Your task to perform on an android device: Check the settings for the YouTube app Image 0: 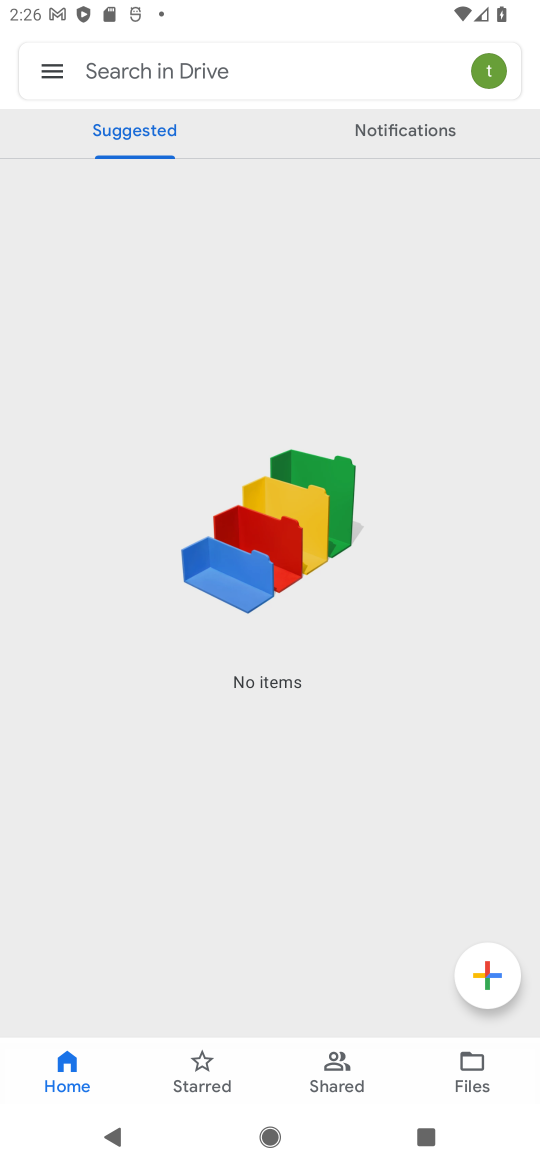
Step 0: press home button
Your task to perform on an android device: Check the settings for the YouTube app Image 1: 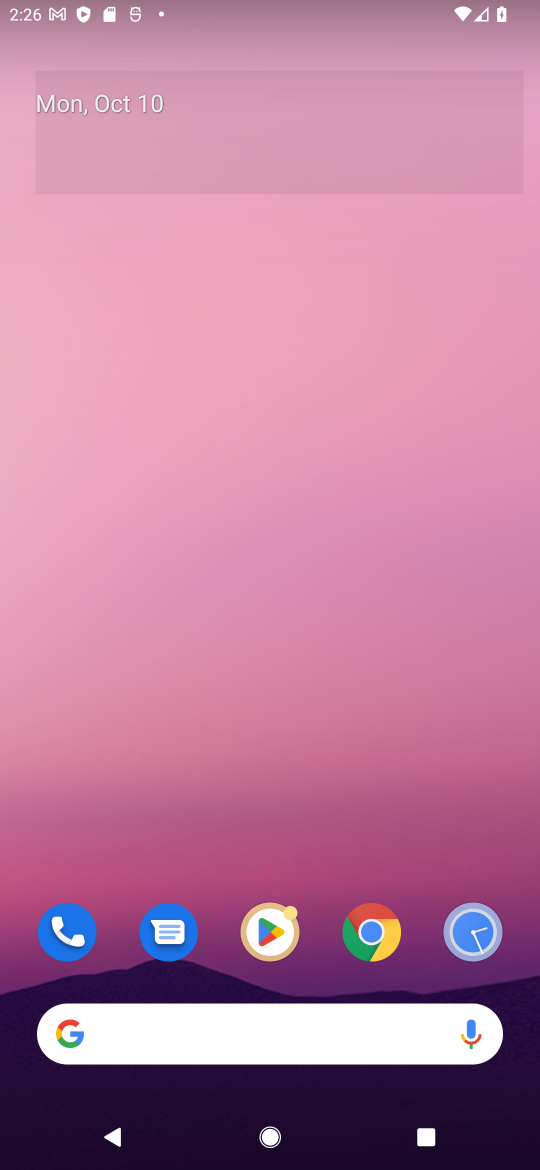
Step 1: drag from (482, 847) to (472, 105)
Your task to perform on an android device: Check the settings for the YouTube app Image 2: 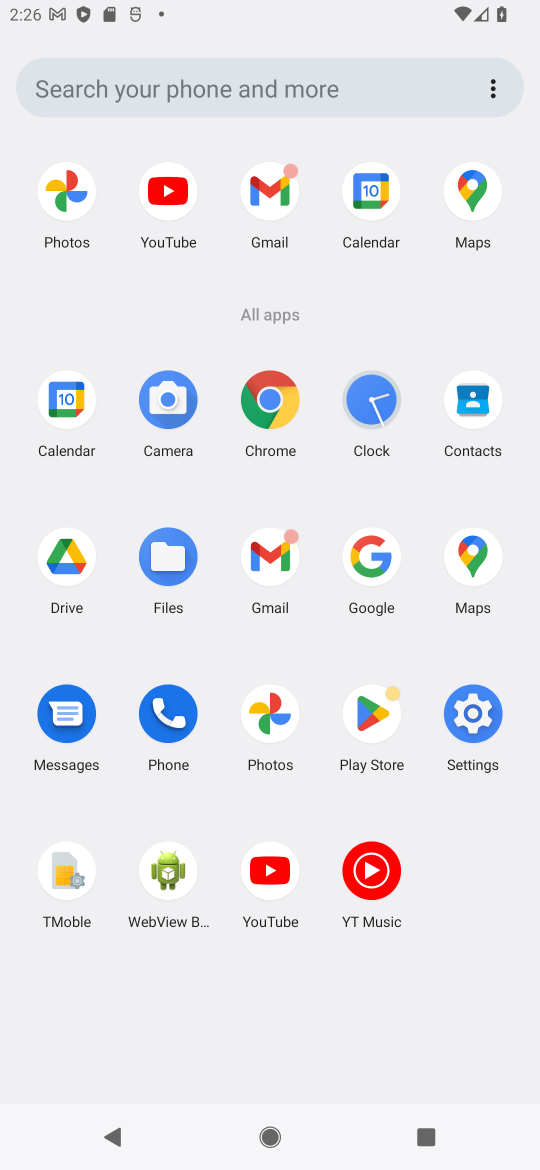
Step 2: click (274, 872)
Your task to perform on an android device: Check the settings for the YouTube app Image 3: 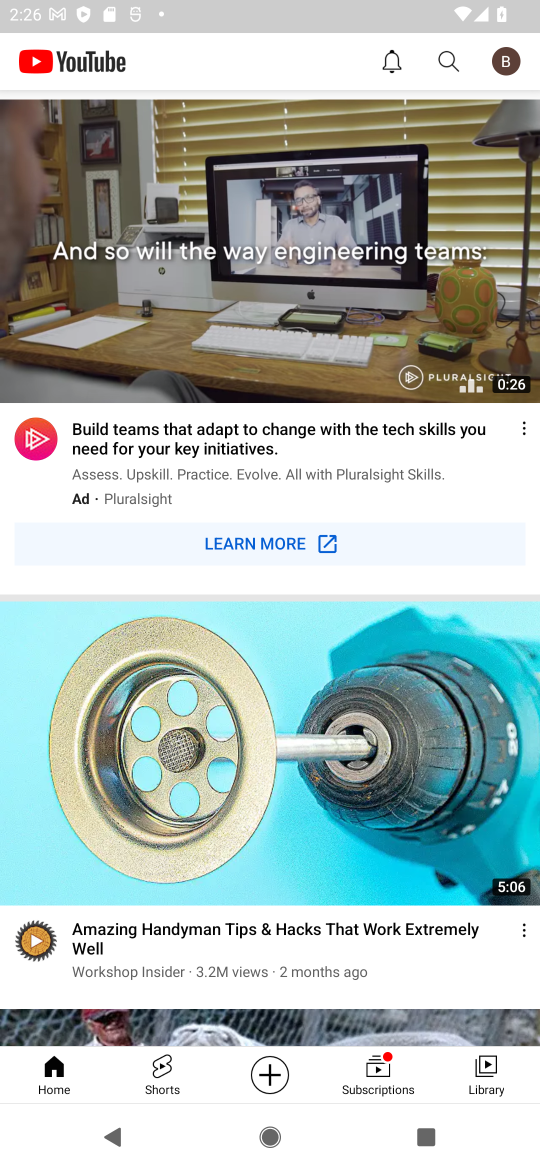
Step 3: click (506, 57)
Your task to perform on an android device: Check the settings for the YouTube app Image 4: 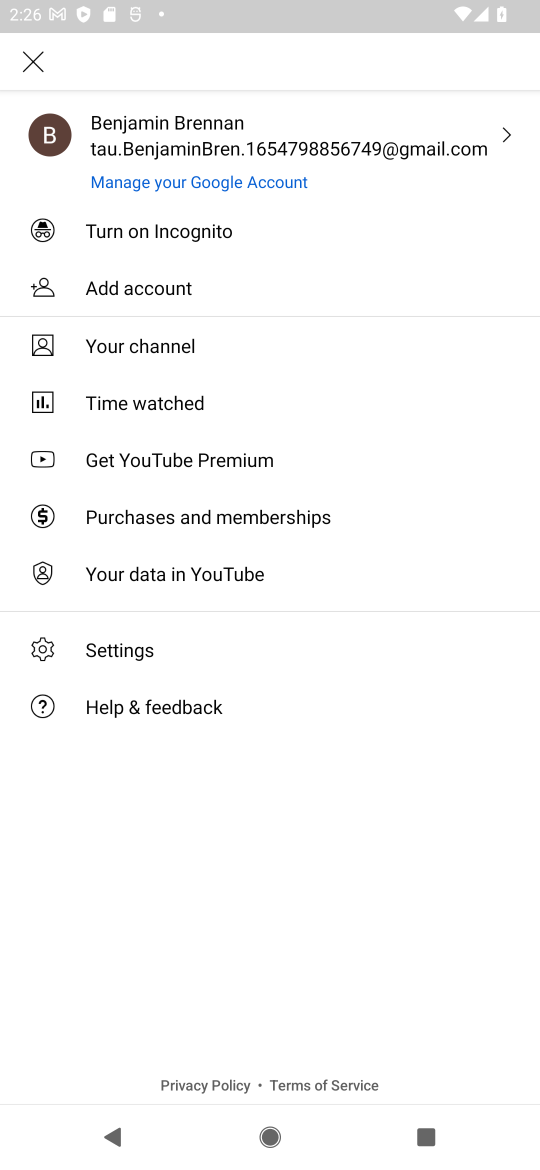
Step 4: click (130, 649)
Your task to perform on an android device: Check the settings for the YouTube app Image 5: 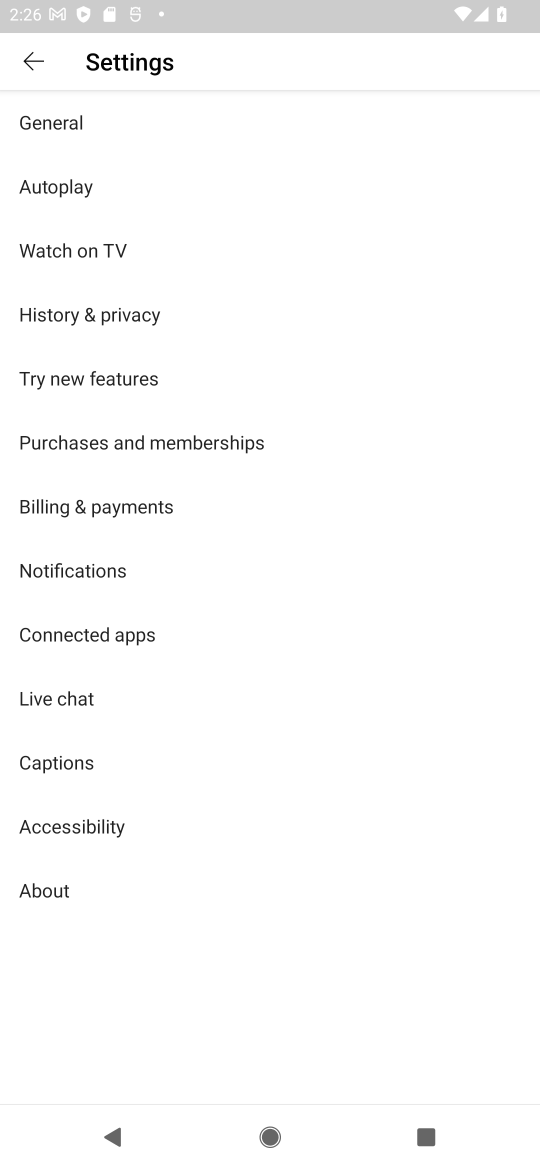
Step 5: task complete